Your task to perform on an android device: turn vacation reply on in the gmail app Image 0: 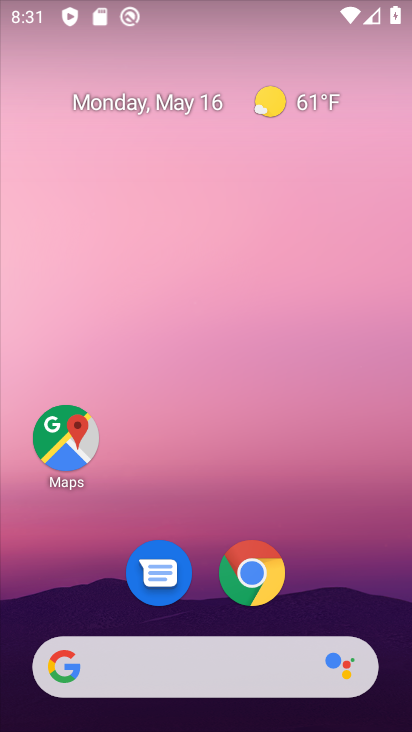
Step 0: drag from (207, 725) to (208, 204)
Your task to perform on an android device: turn vacation reply on in the gmail app Image 1: 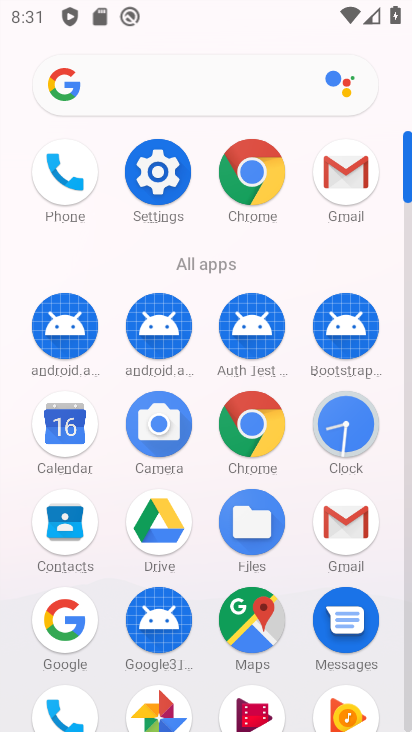
Step 1: click (347, 528)
Your task to perform on an android device: turn vacation reply on in the gmail app Image 2: 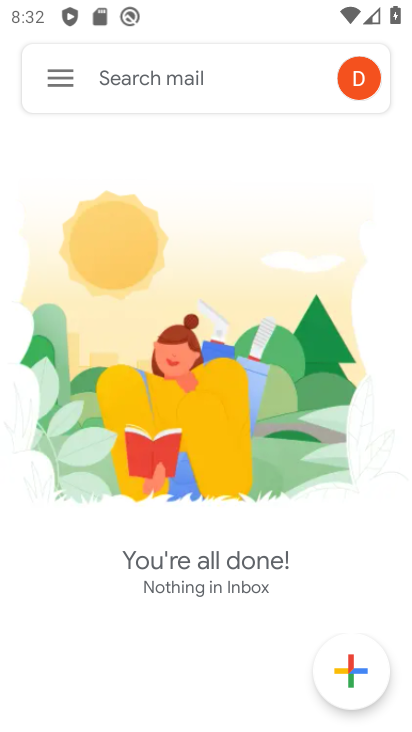
Step 2: click (64, 88)
Your task to perform on an android device: turn vacation reply on in the gmail app Image 3: 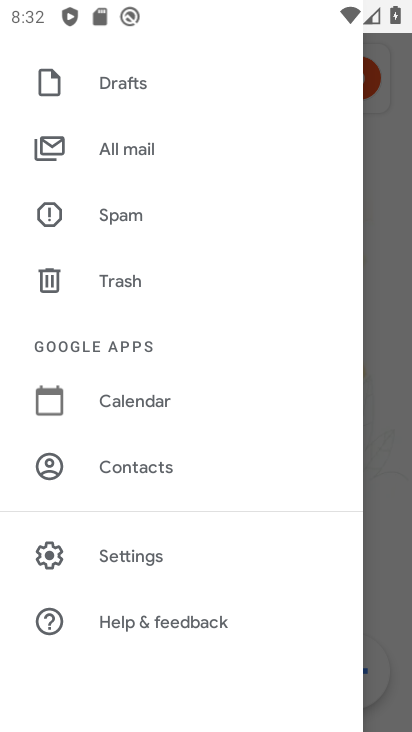
Step 3: click (125, 555)
Your task to perform on an android device: turn vacation reply on in the gmail app Image 4: 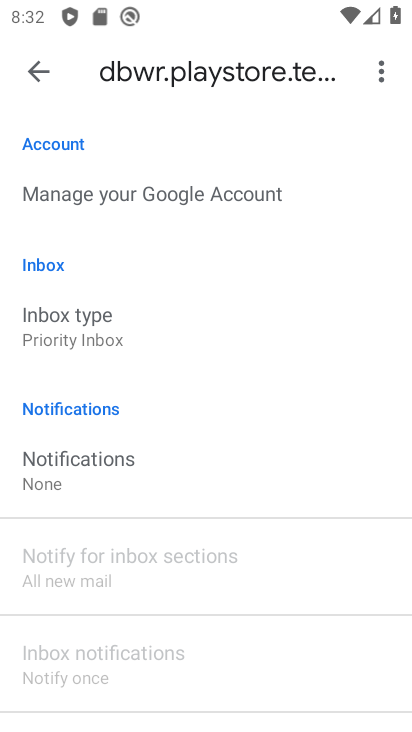
Step 4: drag from (135, 626) to (130, 275)
Your task to perform on an android device: turn vacation reply on in the gmail app Image 5: 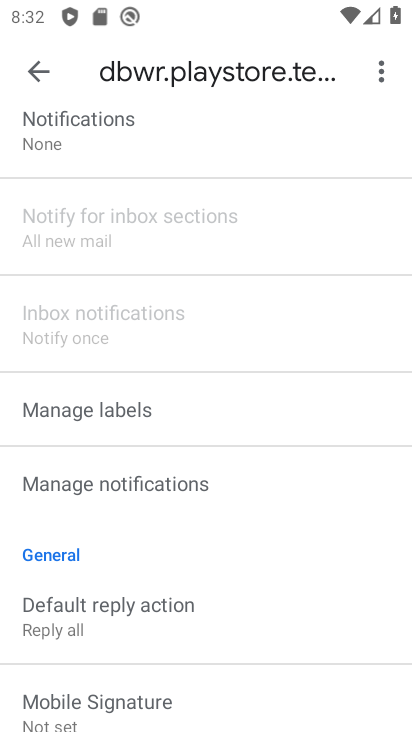
Step 5: drag from (144, 678) to (136, 289)
Your task to perform on an android device: turn vacation reply on in the gmail app Image 6: 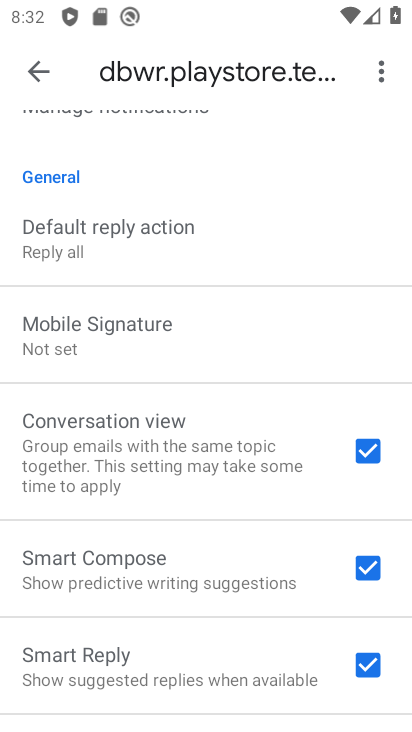
Step 6: drag from (89, 623) to (96, 188)
Your task to perform on an android device: turn vacation reply on in the gmail app Image 7: 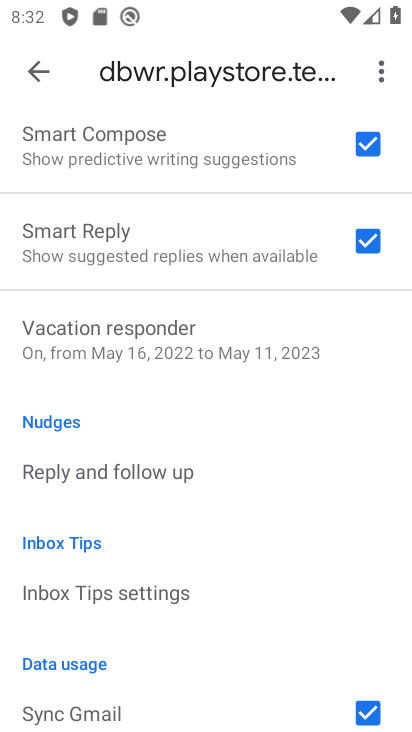
Step 7: click (150, 337)
Your task to perform on an android device: turn vacation reply on in the gmail app Image 8: 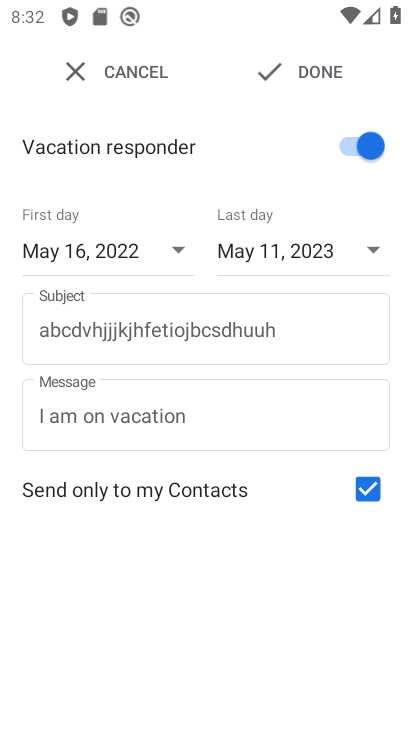
Step 8: task complete